Your task to perform on an android device: Go to ESPN.com Image 0: 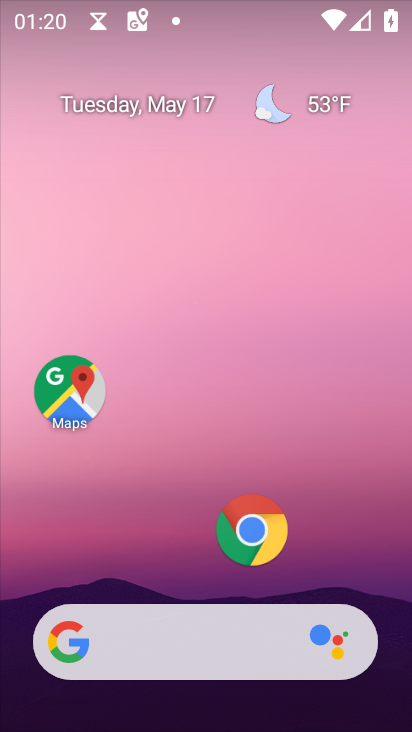
Step 0: drag from (96, 677) to (351, 323)
Your task to perform on an android device: Go to ESPN.com Image 1: 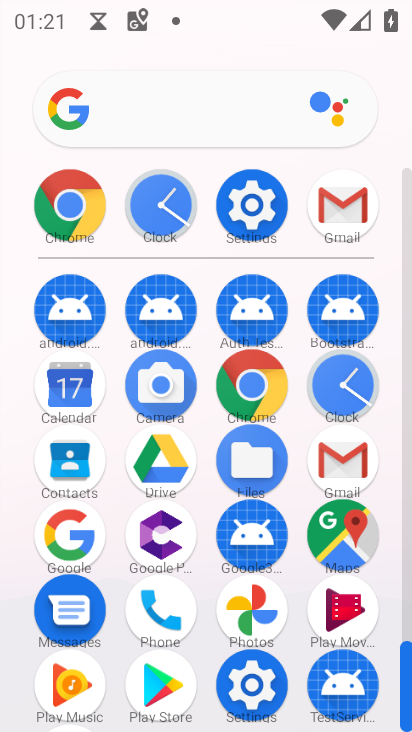
Step 1: click (257, 385)
Your task to perform on an android device: Go to ESPN.com Image 2: 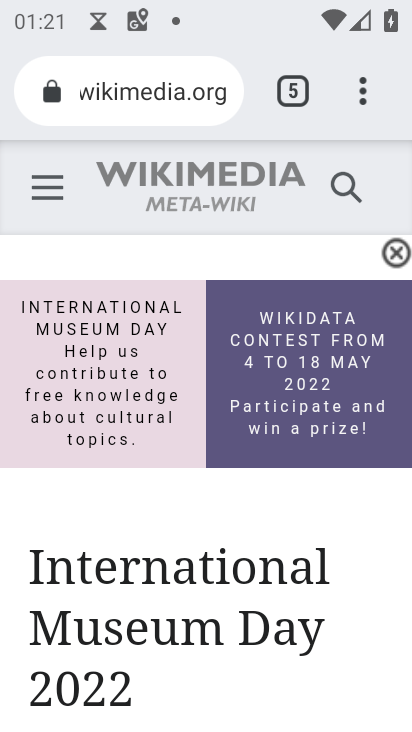
Step 2: click (295, 95)
Your task to perform on an android device: Go to ESPN.com Image 3: 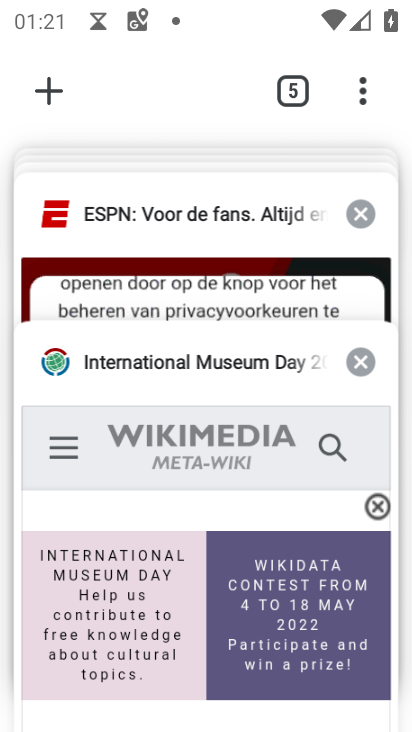
Step 3: click (176, 237)
Your task to perform on an android device: Go to ESPN.com Image 4: 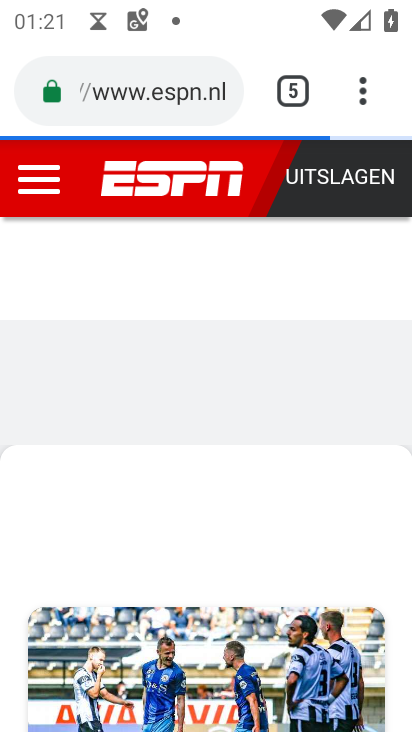
Step 4: task complete